Your task to perform on an android device: Open location settings Image 0: 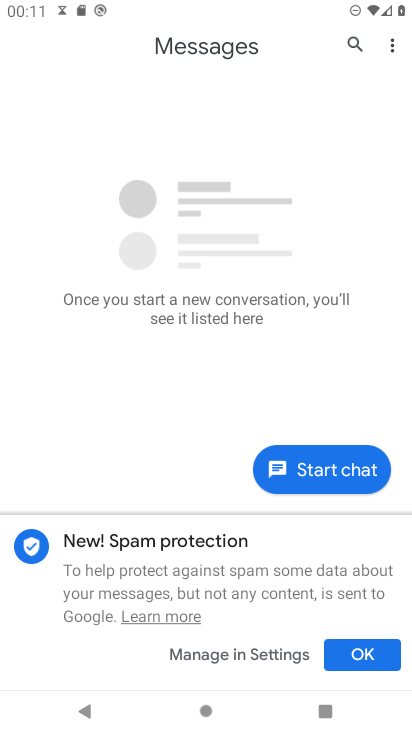
Step 0: press home button
Your task to perform on an android device: Open location settings Image 1: 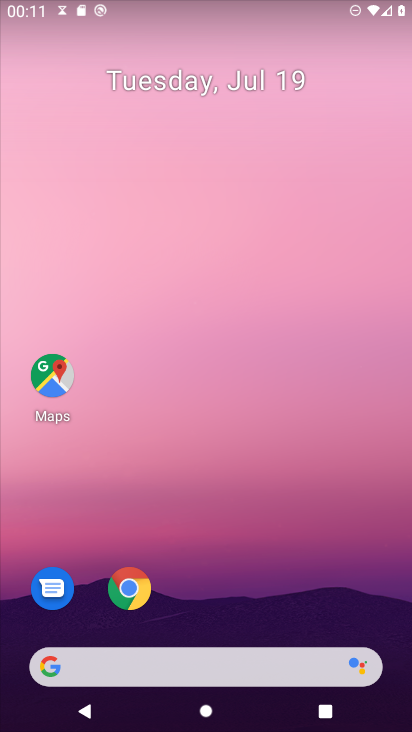
Step 1: drag from (255, 577) to (312, 61)
Your task to perform on an android device: Open location settings Image 2: 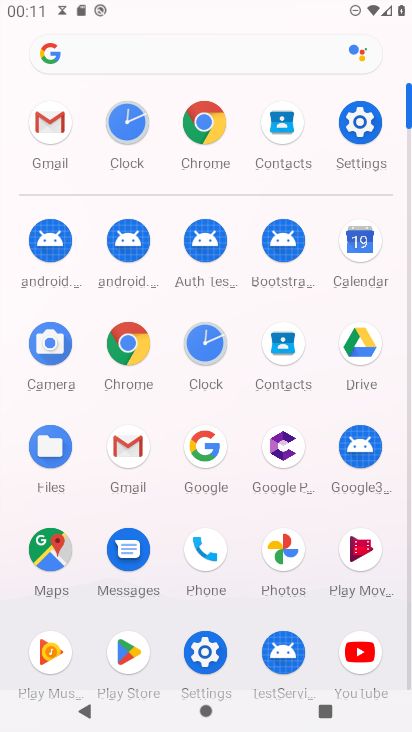
Step 2: click (359, 119)
Your task to perform on an android device: Open location settings Image 3: 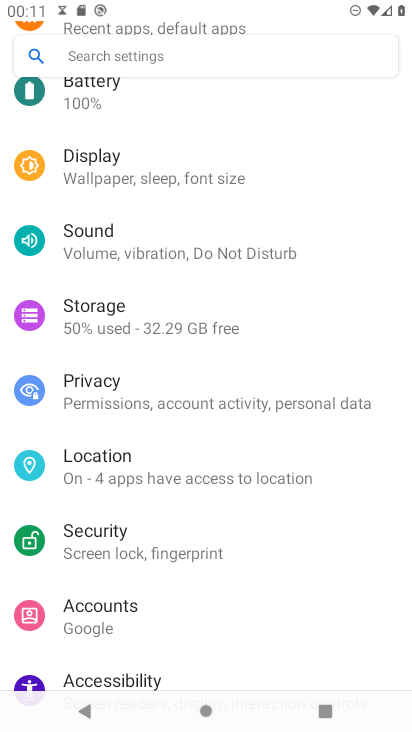
Step 3: click (151, 470)
Your task to perform on an android device: Open location settings Image 4: 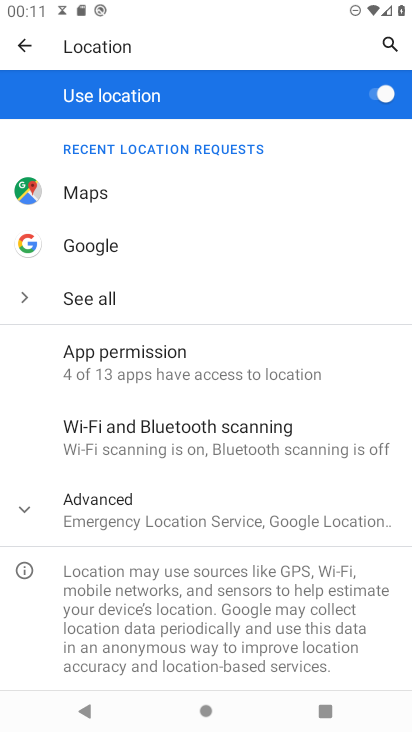
Step 4: task complete